Your task to perform on an android device: check the backup settings in the google photos Image 0: 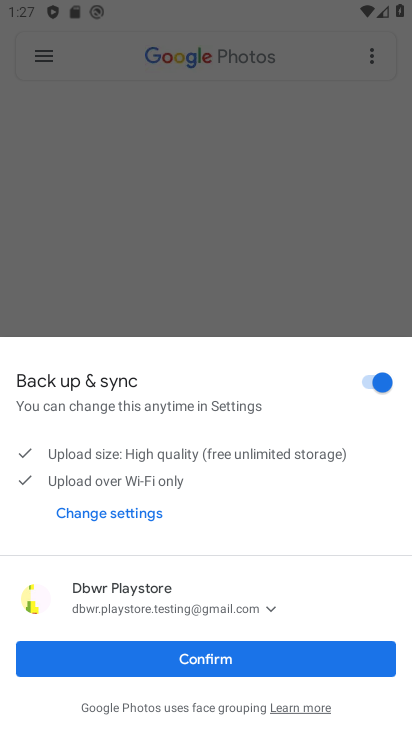
Step 0: click (181, 665)
Your task to perform on an android device: check the backup settings in the google photos Image 1: 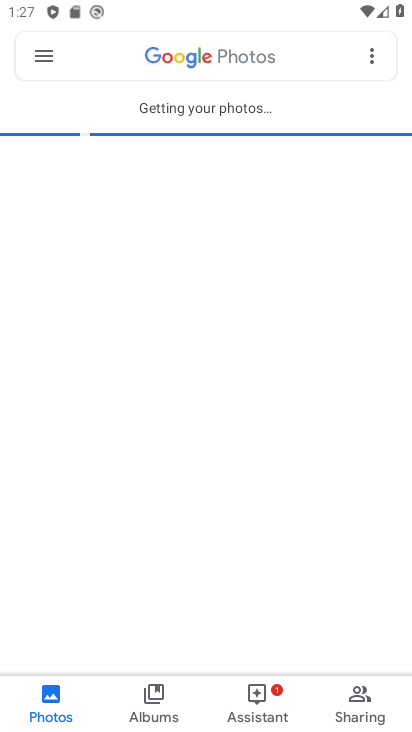
Step 1: click (40, 59)
Your task to perform on an android device: check the backup settings in the google photos Image 2: 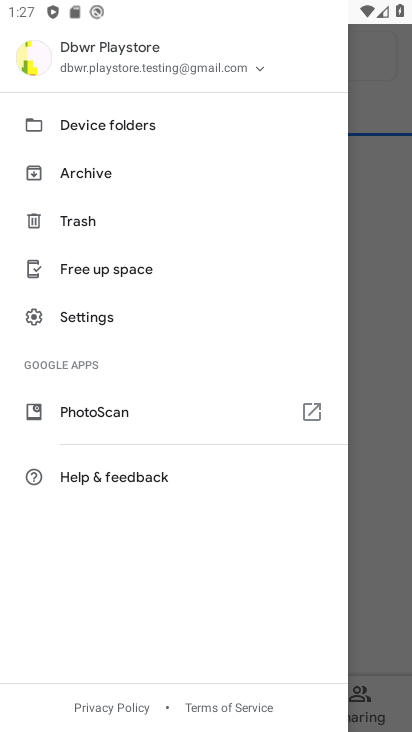
Step 2: click (91, 324)
Your task to perform on an android device: check the backup settings in the google photos Image 3: 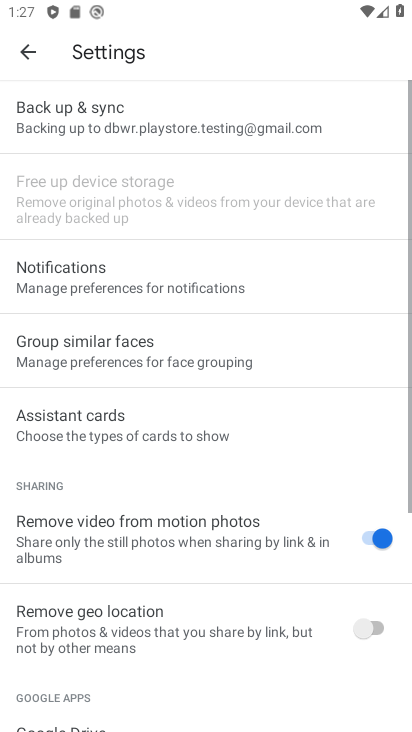
Step 3: drag from (176, 584) to (210, 253)
Your task to perform on an android device: check the backup settings in the google photos Image 4: 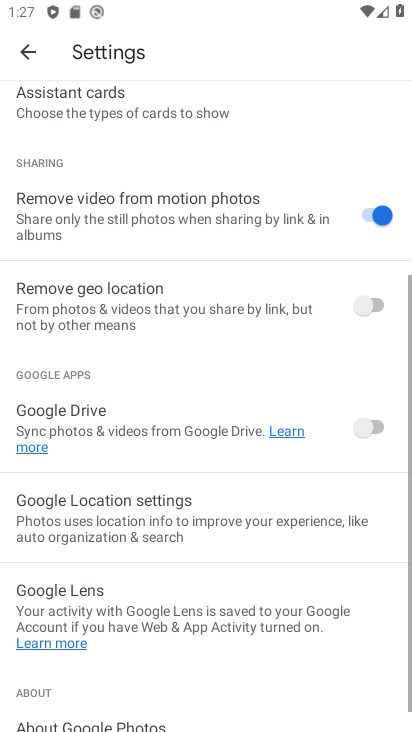
Step 4: drag from (192, 177) to (379, 708)
Your task to perform on an android device: check the backup settings in the google photos Image 5: 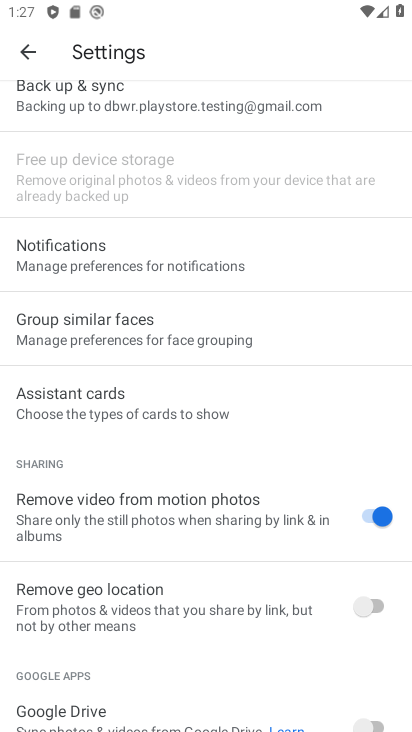
Step 5: click (116, 106)
Your task to perform on an android device: check the backup settings in the google photos Image 6: 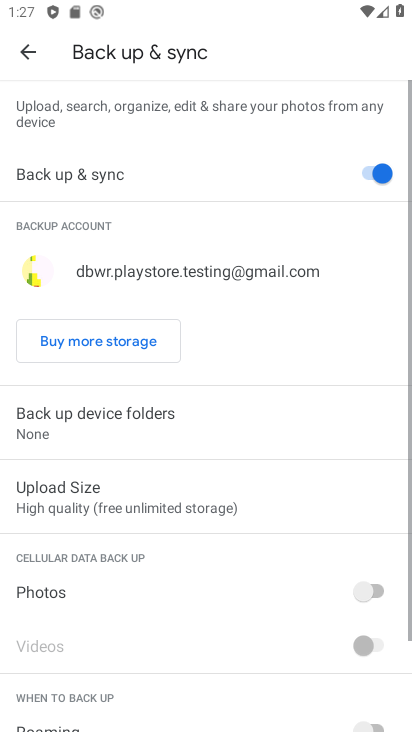
Step 6: task complete